Your task to perform on an android device: find which apps use the phone's location Image 0: 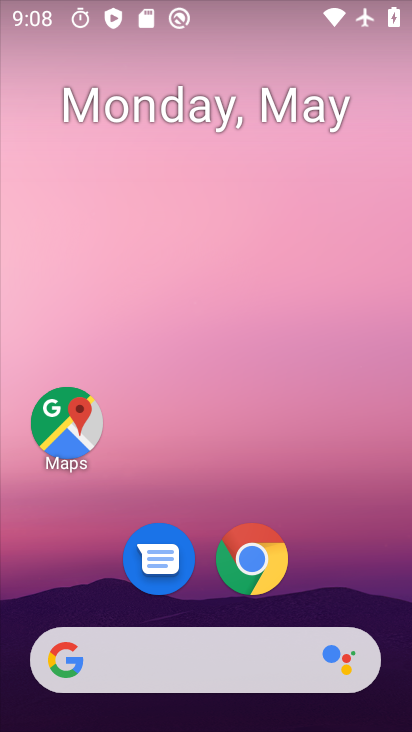
Step 0: drag from (317, 601) to (324, 91)
Your task to perform on an android device: find which apps use the phone's location Image 1: 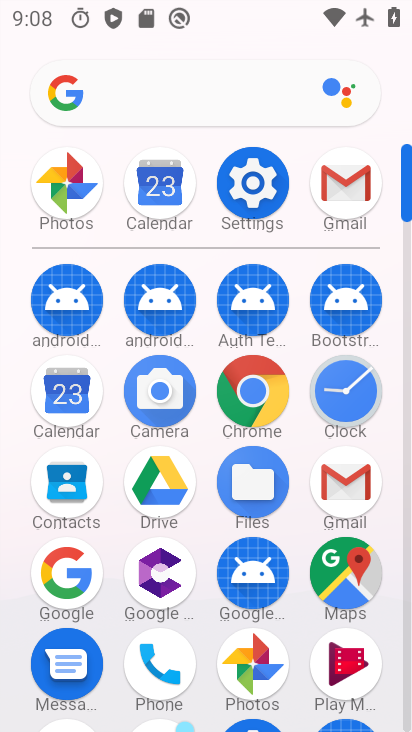
Step 1: click (259, 173)
Your task to perform on an android device: find which apps use the phone's location Image 2: 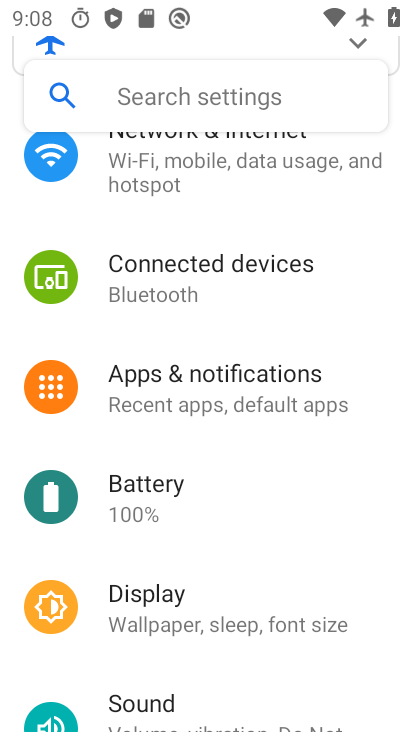
Step 2: drag from (201, 653) to (190, 355)
Your task to perform on an android device: find which apps use the phone's location Image 3: 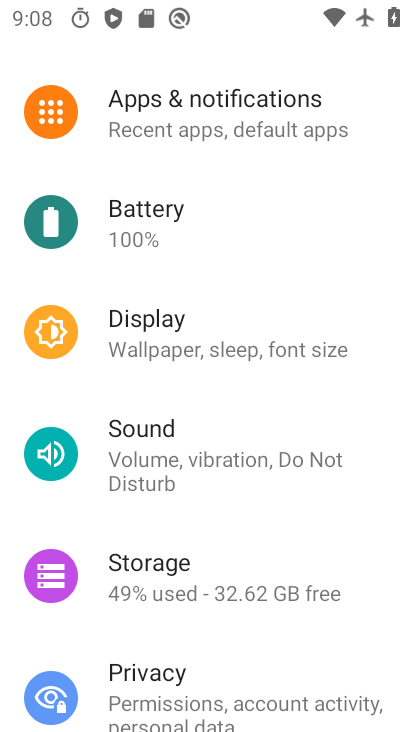
Step 3: drag from (185, 621) to (178, 364)
Your task to perform on an android device: find which apps use the phone's location Image 4: 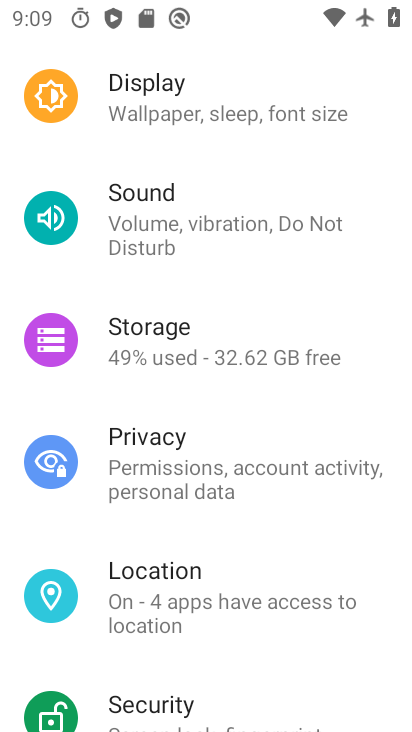
Step 4: click (160, 585)
Your task to perform on an android device: find which apps use the phone's location Image 5: 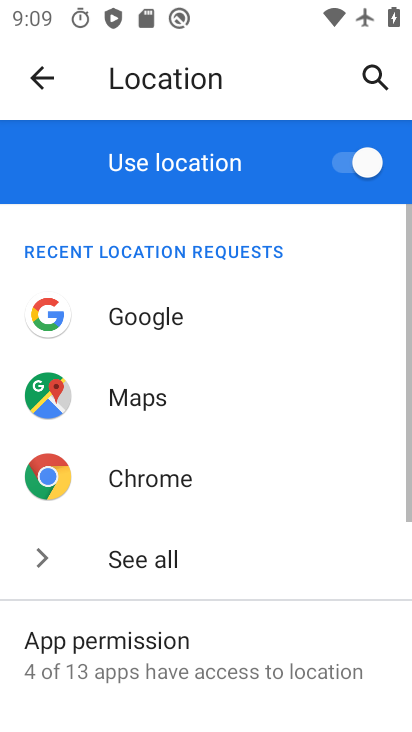
Step 5: drag from (261, 679) to (274, 370)
Your task to perform on an android device: find which apps use the phone's location Image 6: 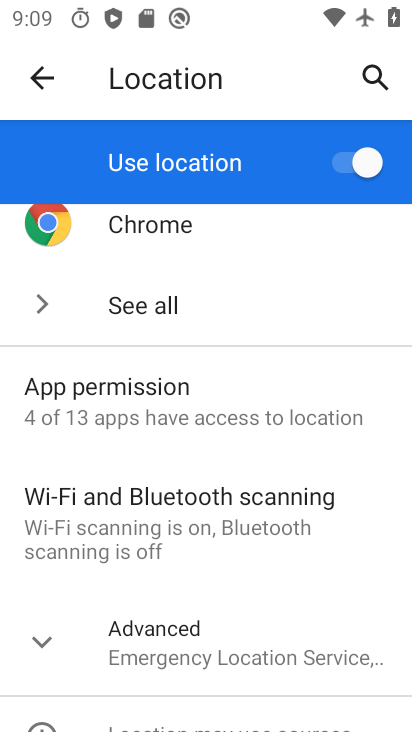
Step 6: click (124, 424)
Your task to perform on an android device: find which apps use the phone's location Image 7: 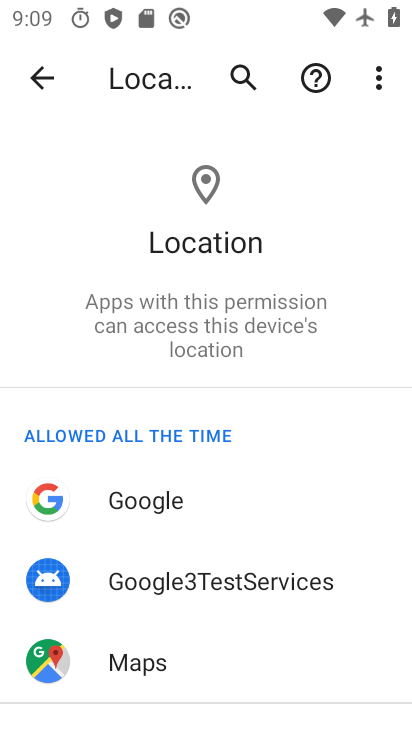
Step 7: task complete